Your task to perform on an android device: turn off notifications in google photos Image 0: 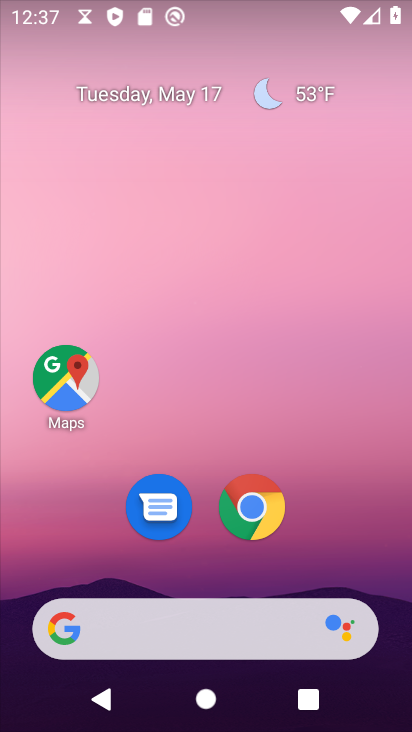
Step 0: drag from (220, 575) to (169, 0)
Your task to perform on an android device: turn off notifications in google photos Image 1: 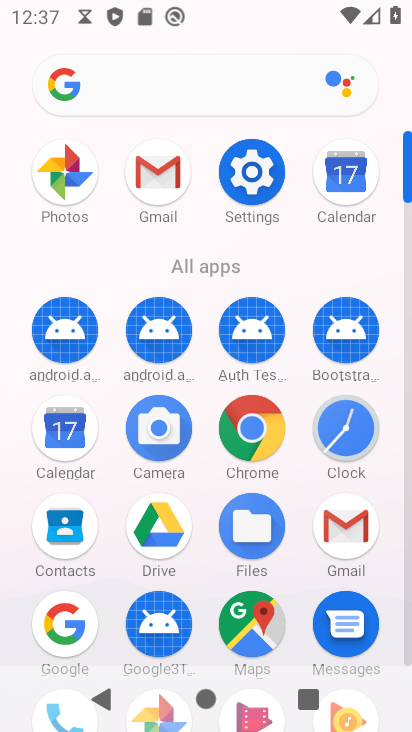
Step 1: click (67, 182)
Your task to perform on an android device: turn off notifications in google photos Image 2: 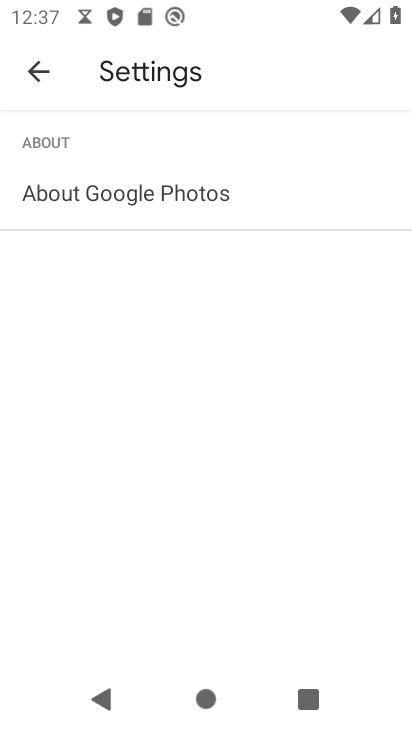
Step 2: click (32, 77)
Your task to perform on an android device: turn off notifications in google photos Image 3: 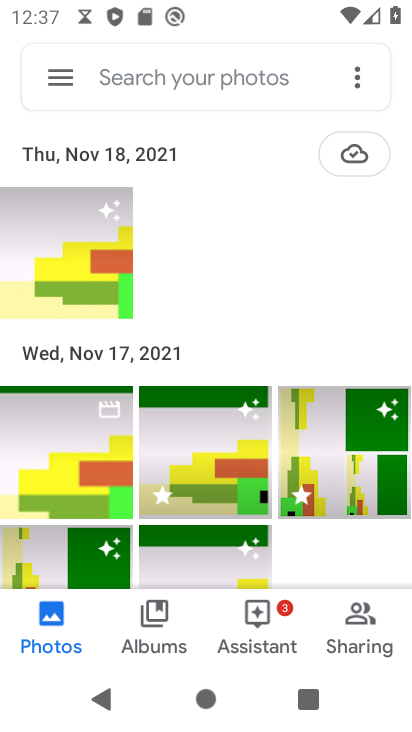
Step 3: click (63, 75)
Your task to perform on an android device: turn off notifications in google photos Image 4: 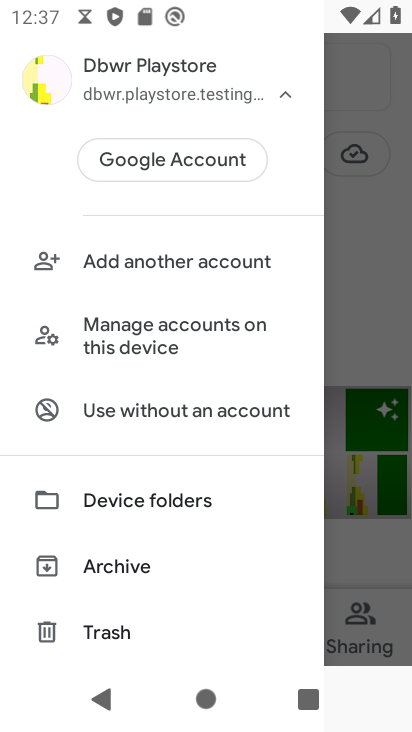
Step 4: drag from (241, 536) to (222, 176)
Your task to perform on an android device: turn off notifications in google photos Image 5: 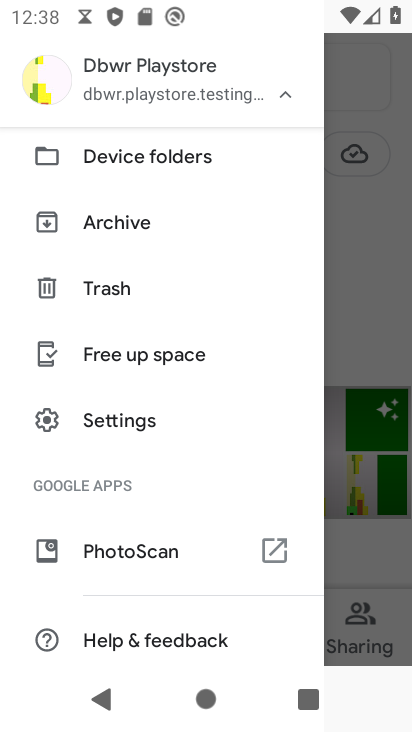
Step 5: click (123, 427)
Your task to perform on an android device: turn off notifications in google photos Image 6: 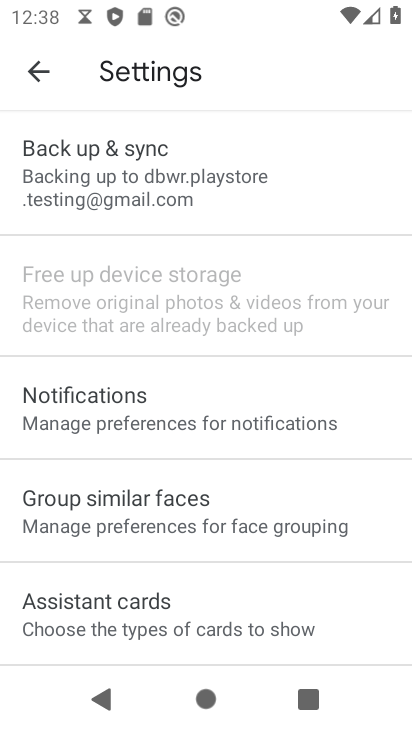
Step 6: click (136, 421)
Your task to perform on an android device: turn off notifications in google photos Image 7: 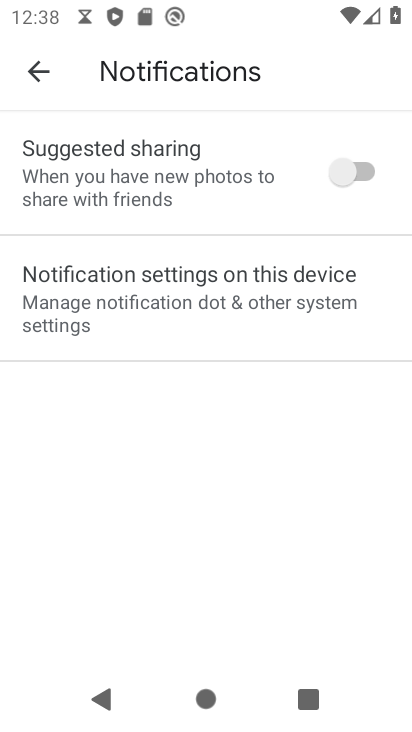
Step 7: click (230, 290)
Your task to perform on an android device: turn off notifications in google photos Image 8: 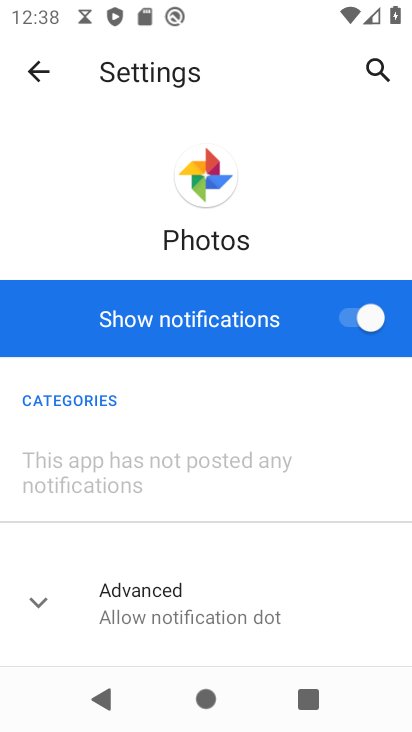
Step 8: drag from (272, 491) to (256, 212)
Your task to perform on an android device: turn off notifications in google photos Image 9: 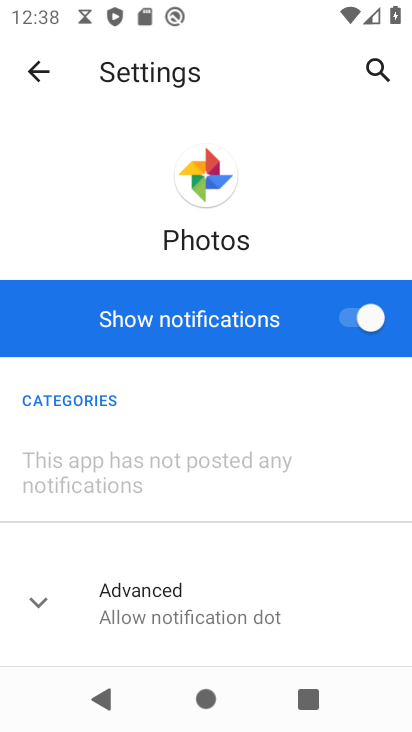
Step 9: drag from (241, 550) to (228, 228)
Your task to perform on an android device: turn off notifications in google photos Image 10: 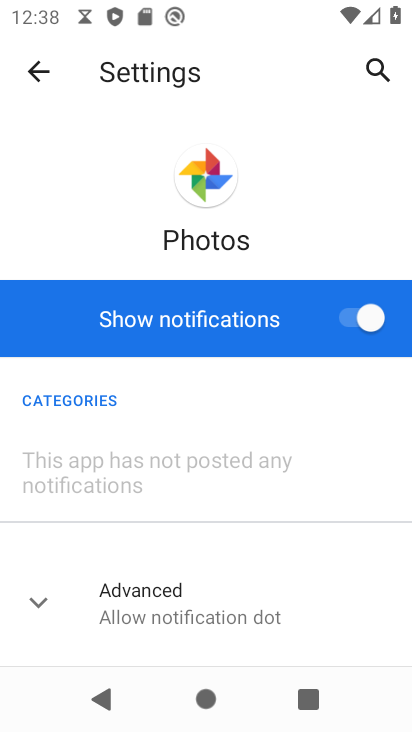
Step 10: click (334, 329)
Your task to perform on an android device: turn off notifications in google photos Image 11: 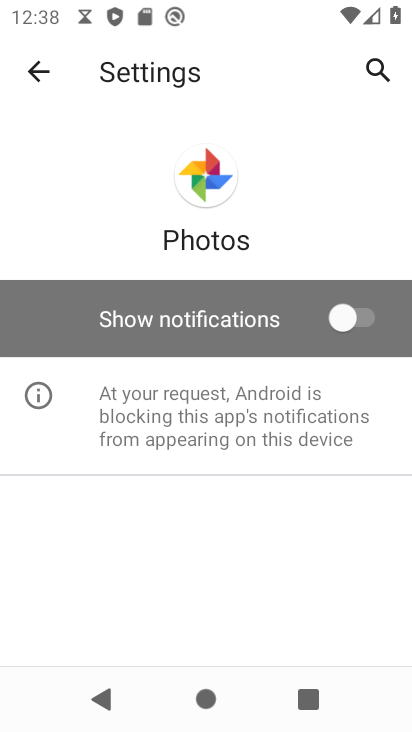
Step 11: task complete